Your task to perform on an android device: change the clock display to digital Image 0: 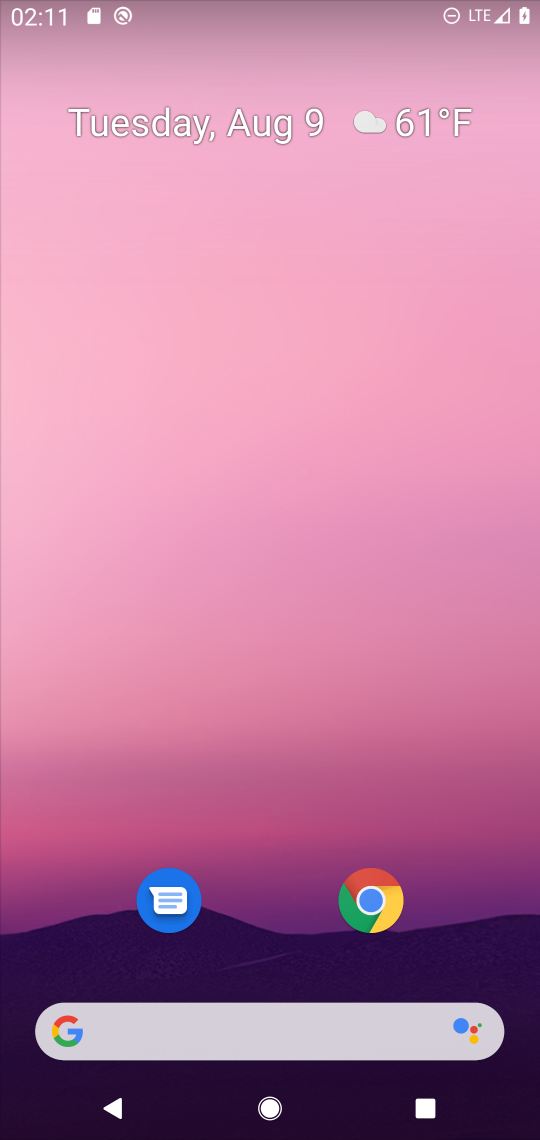
Step 0: press home button
Your task to perform on an android device: change the clock display to digital Image 1: 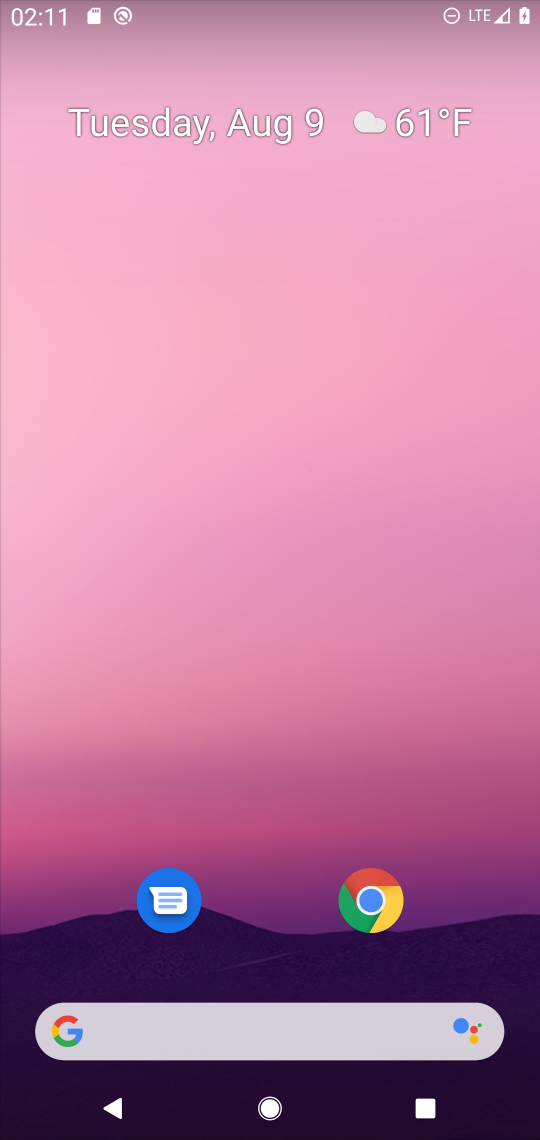
Step 1: drag from (261, 911) to (265, 78)
Your task to perform on an android device: change the clock display to digital Image 2: 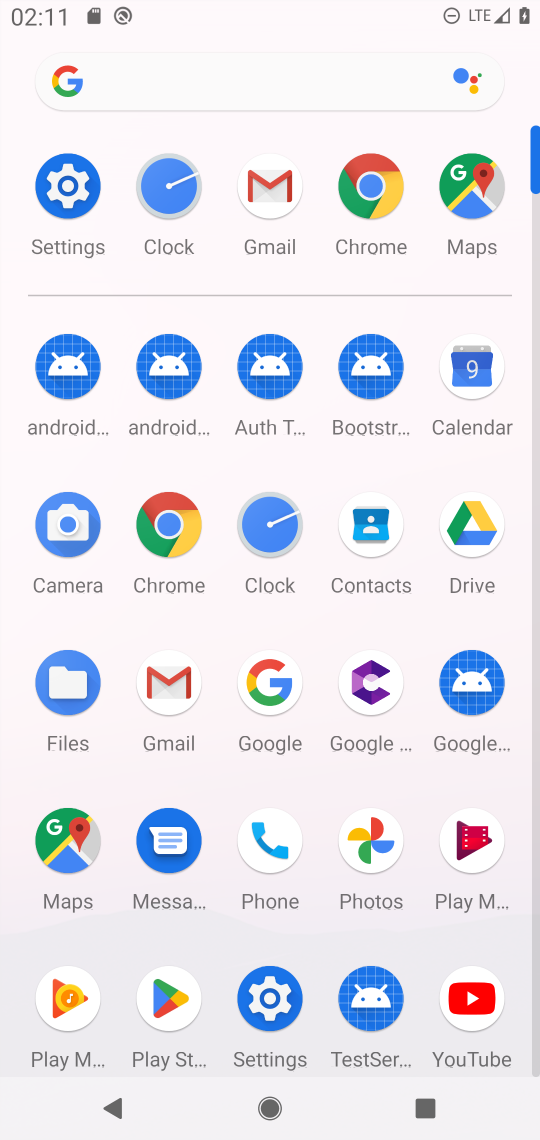
Step 2: click (56, 187)
Your task to perform on an android device: change the clock display to digital Image 3: 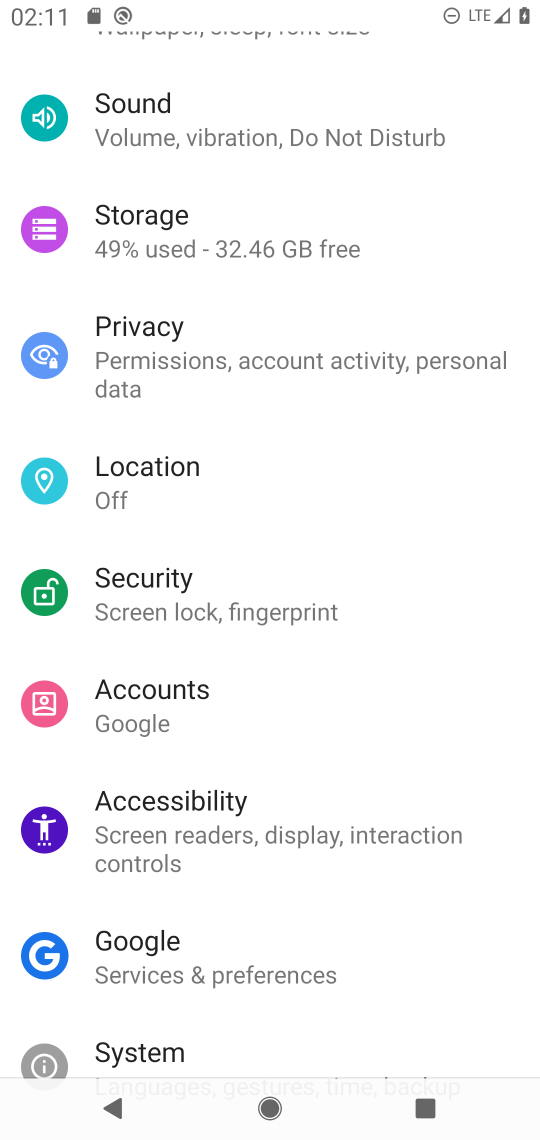
Step 3: drag from (436, 433) to (436, 629)
Your task to perform on an android device: change the clock display to digital Image 4: 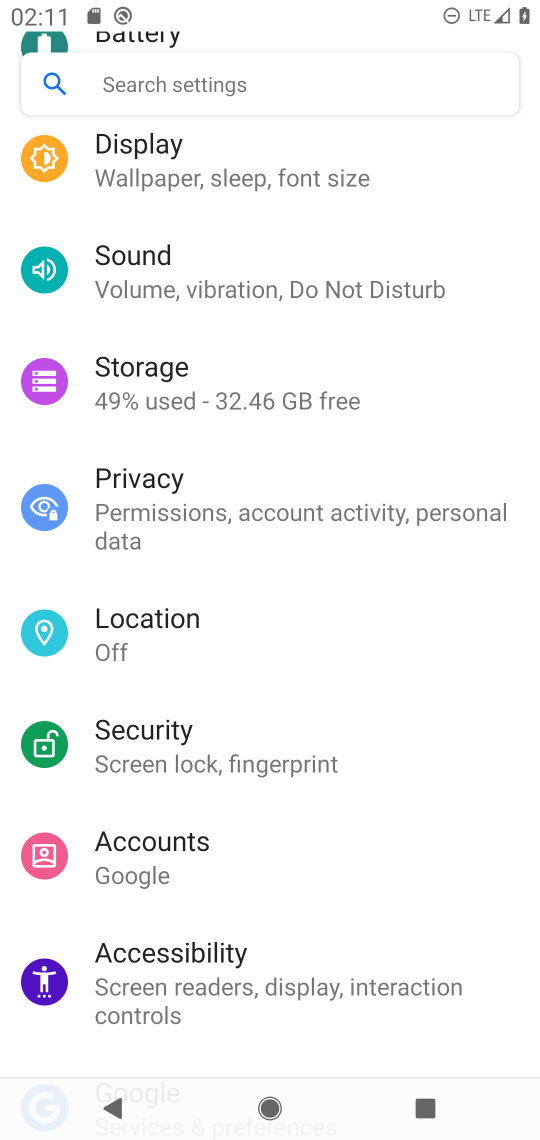
Step 4: drag from (448, 277) to (459, 540)
Your task to perform on an android device: change the clock display to digital Image 5: 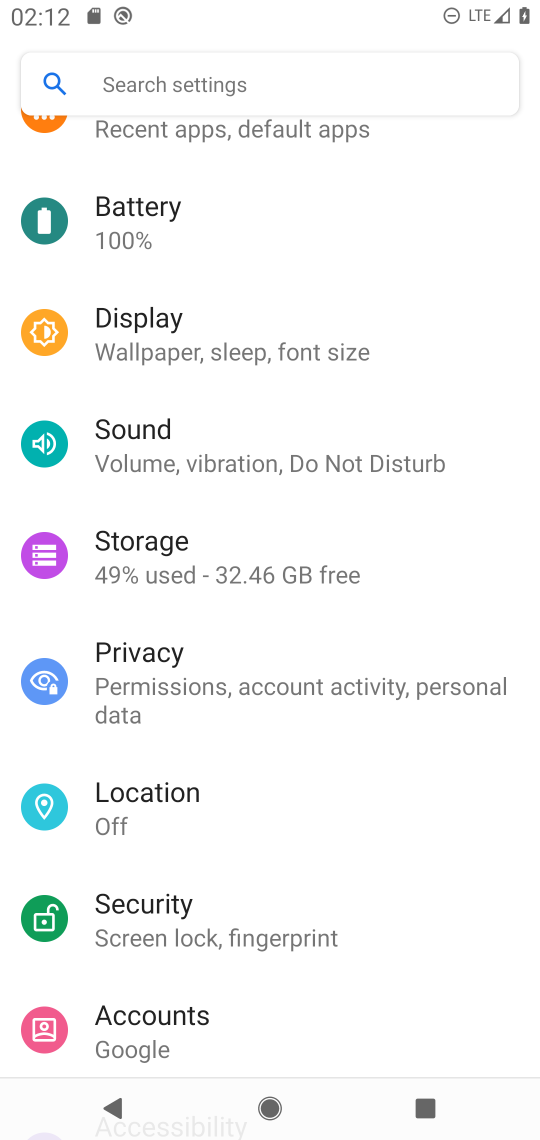
Step 5: drag from (474, 208) to (485, 520)
Your task to perform on an android device: change the clock display to digital Image 6: 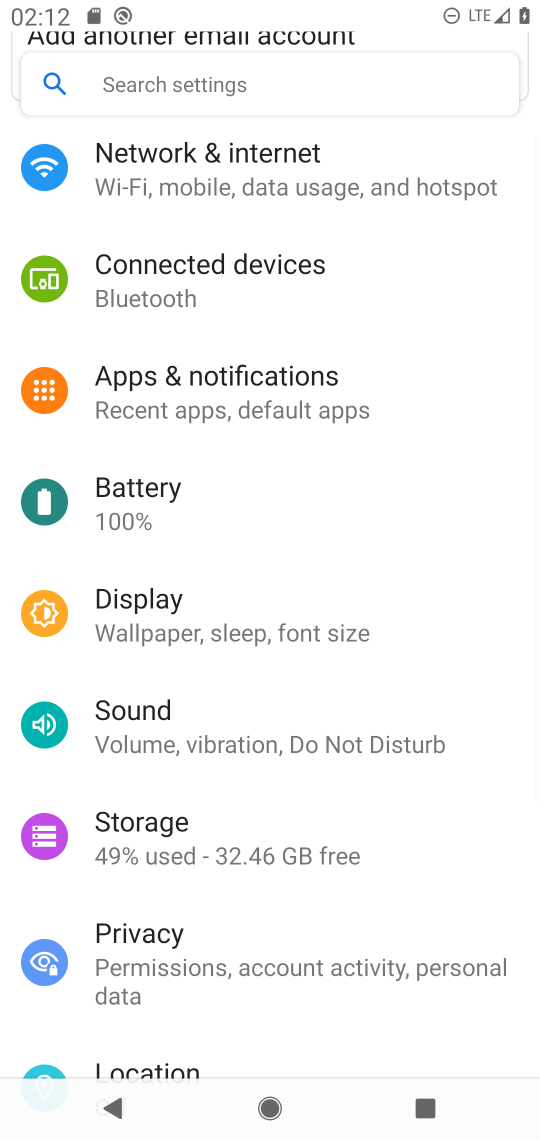
Step 6: drag from (462, 222) to (460, 473)
Your task to perform on an android device: change the clock display to digital Image 7: 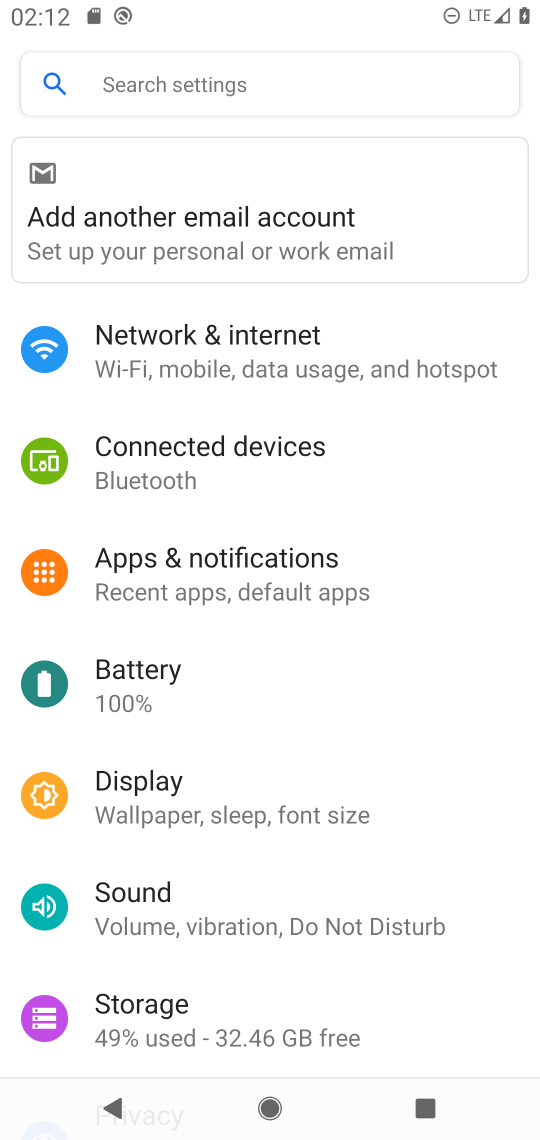
Step 7: press home button
Your task to perform on an android device: change the clock display to digital Image 8: 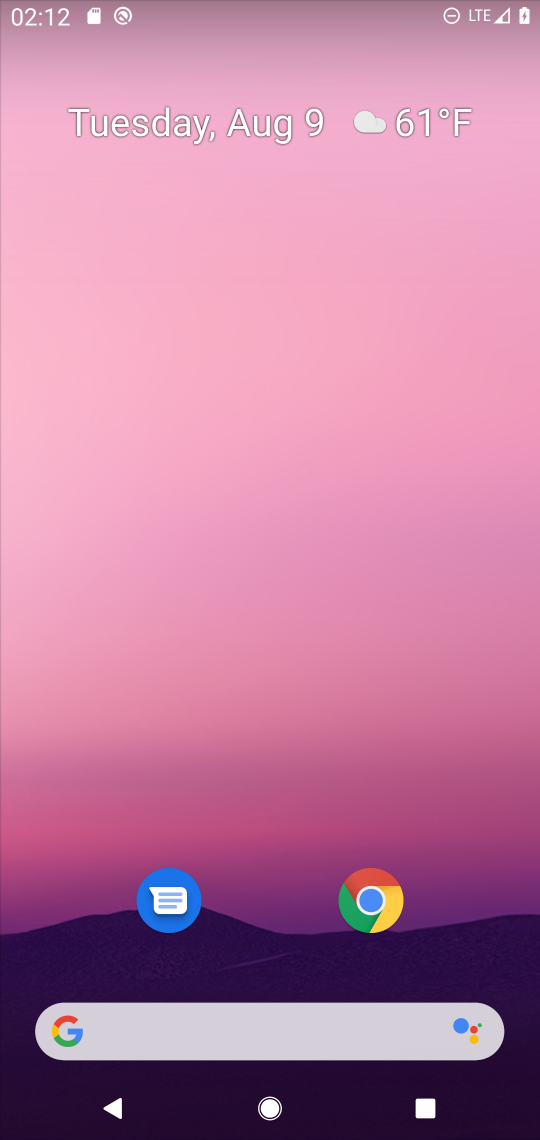
Step 8: drag from (446, 885) to (425, 178)
Your task to perform on an android device: change the clock display to digital Image 9: 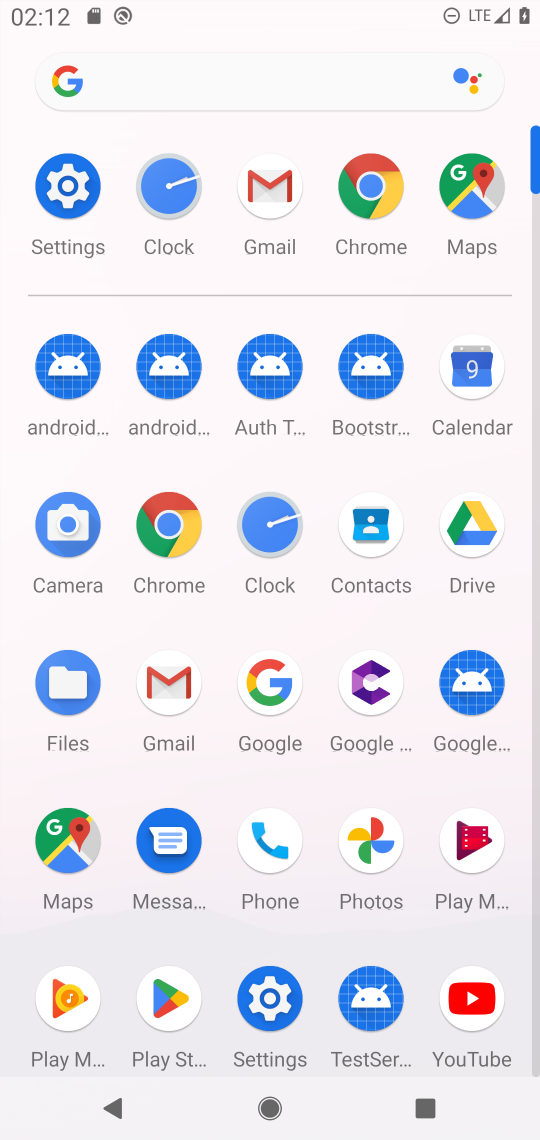
Step 9: click (264, 525)
Your task to perform on an android device: change the clock display to digital Image 10: 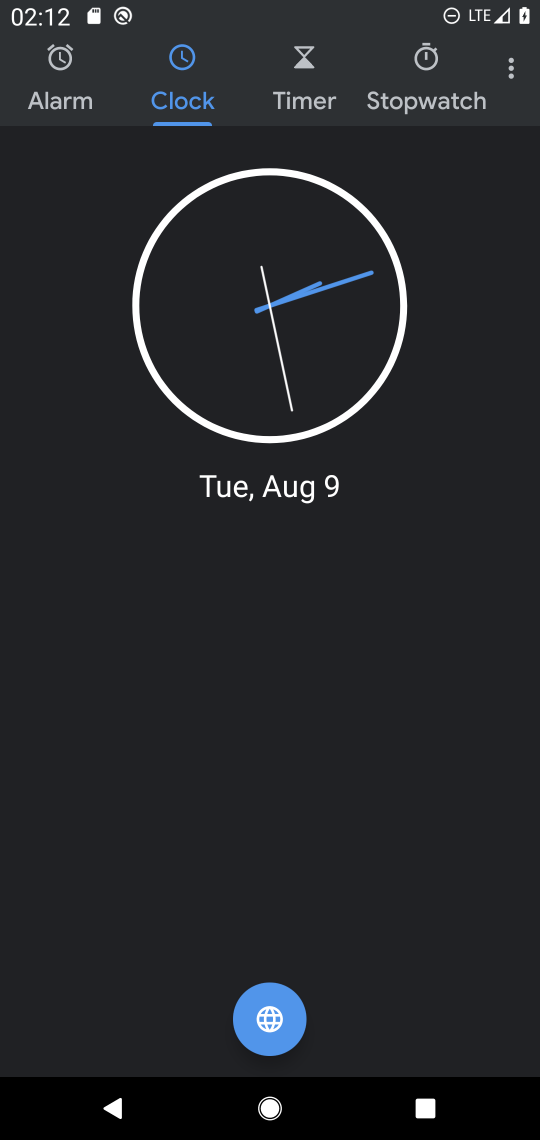
Step 10: click (509, 66)
Your task to perform on an android device: change the clock display to digital Image 11: 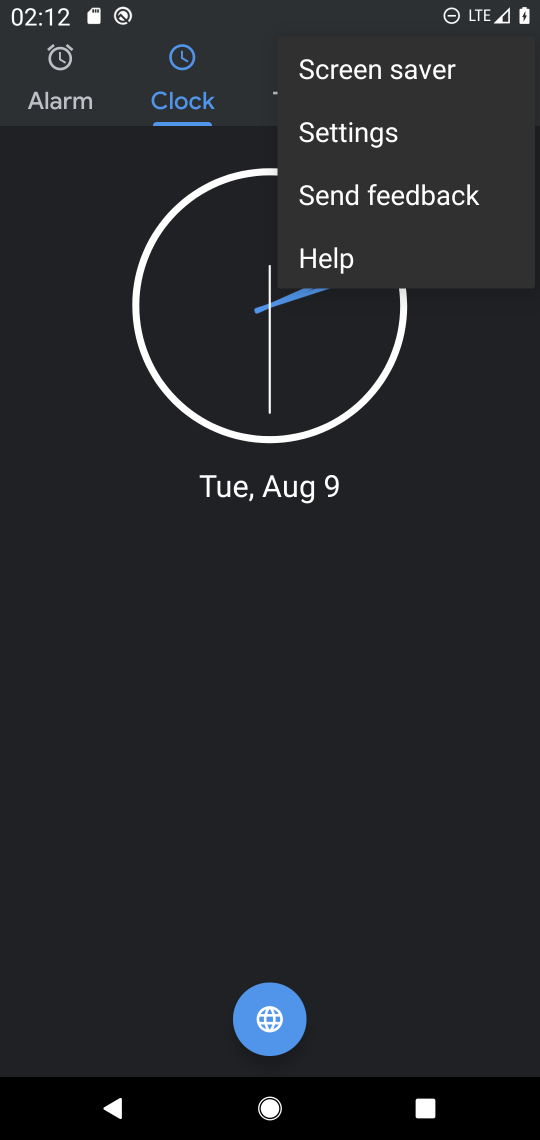
Step 11: click (389, 129)
Your task to perform on an android device: change the clock display to digital Image 12: 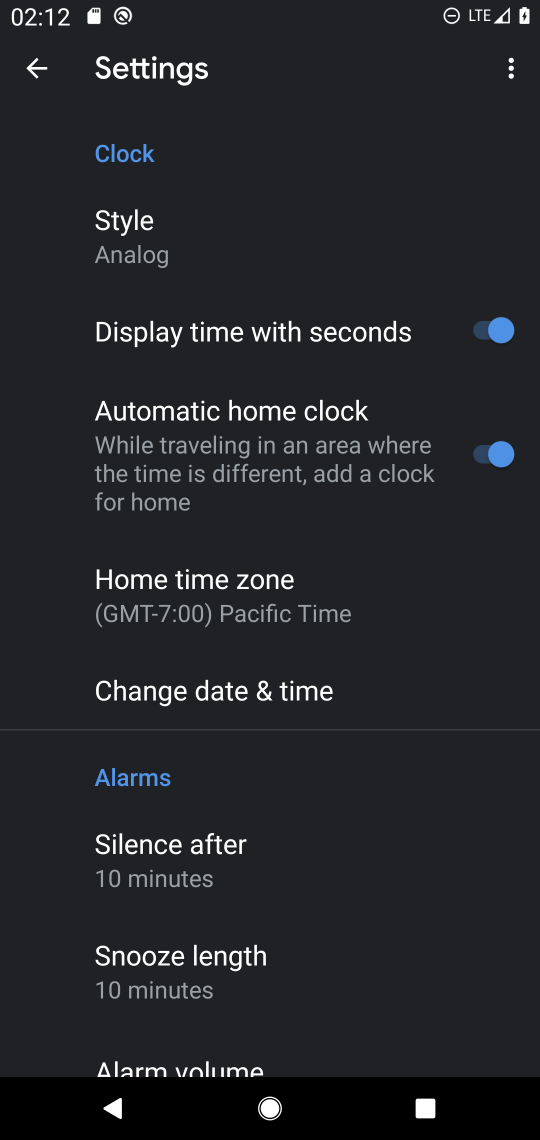
Step 12: click (166, 243)
Your task to perform on an android device: change the clock display to digital Image 13: 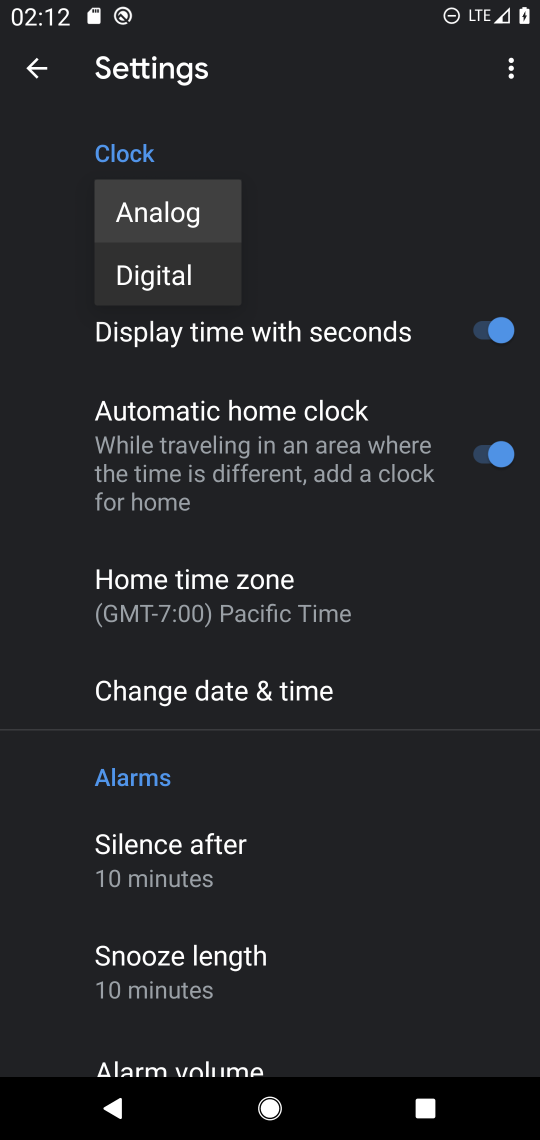
Step 13: click (162, 275)
Your task to perform on an android device: change the clock display to digital Image 14: 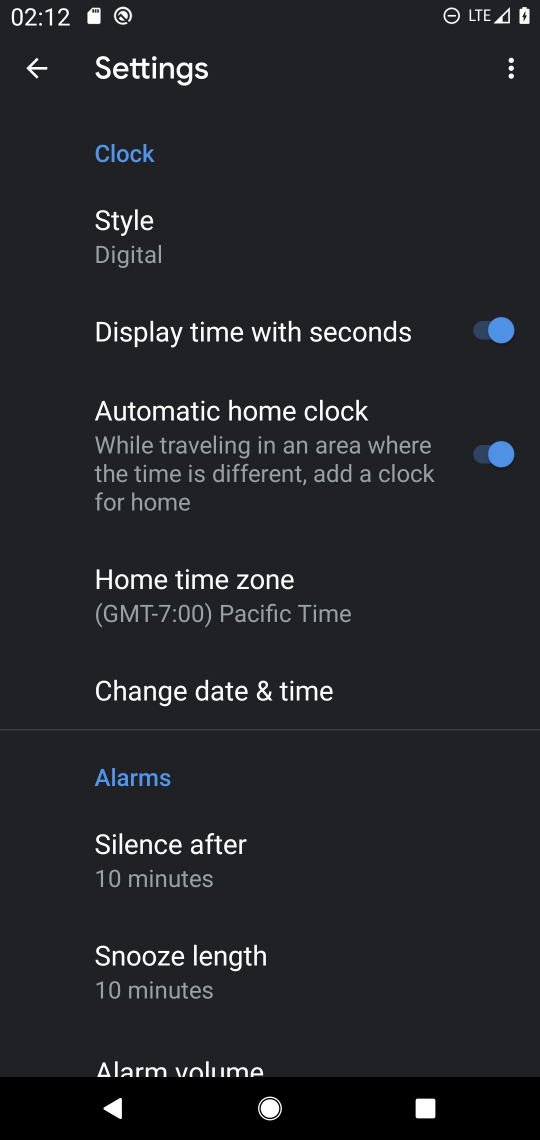
Step 14: task complete